Your task to perform on an android device: change keyboard looks Image 0: 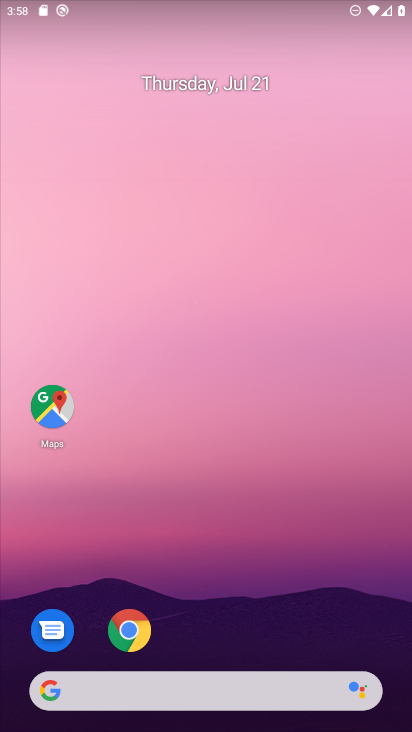
Step 0: drag from (208, 660) to (173, 7)
Your task to perform on an android device: change keyboard looks Image 1: 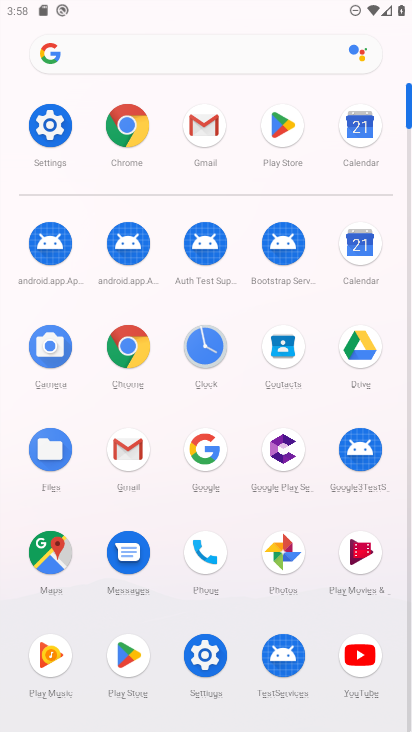
Step 1: click (51, 114)
Your task to perform on an android device: change keyboard looks Image 2: 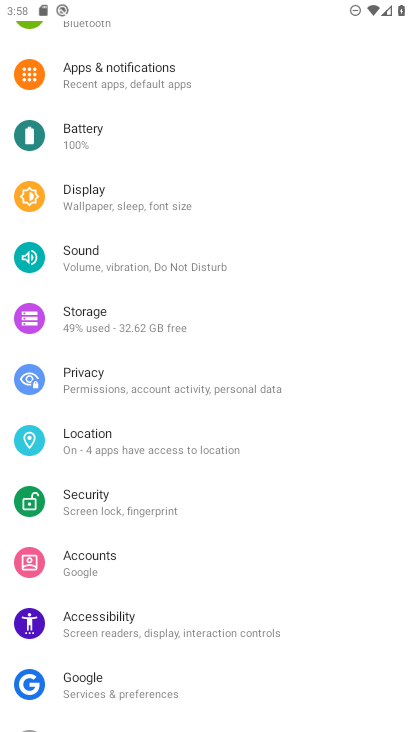
Step 2: drag from (142, 629) to (148, 92)
Your task to perform on an android device: change keyboard looks Image 3: 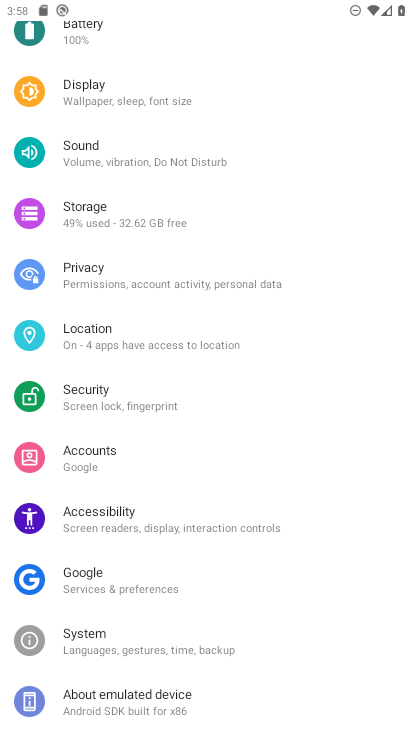
Step 3: click (118, 637)
Your task to perform on an android device: change keyboard looks Image 4: 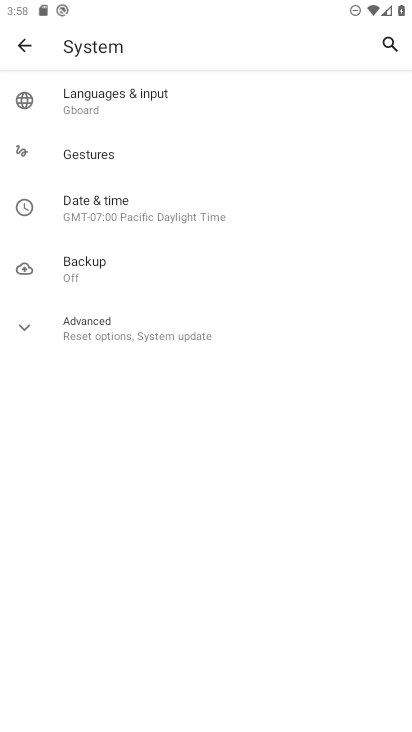
Step 4: click (118, 110)
Your task to perform on an android device: change keyboard looks Image 5: 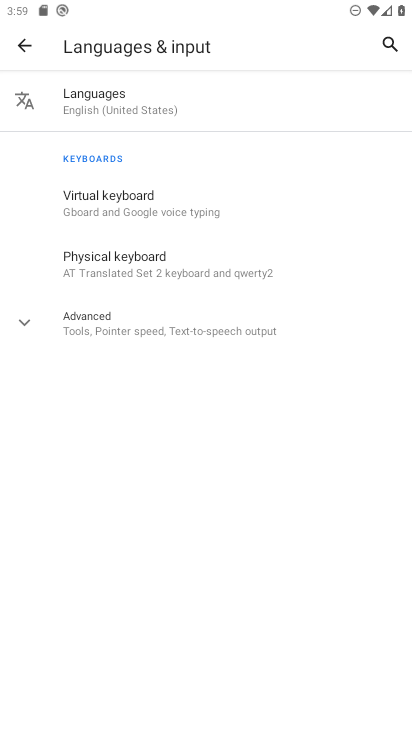
Step 5: click (96, 205)
Your task to perform on an android device: change keyboard looks Image 6: 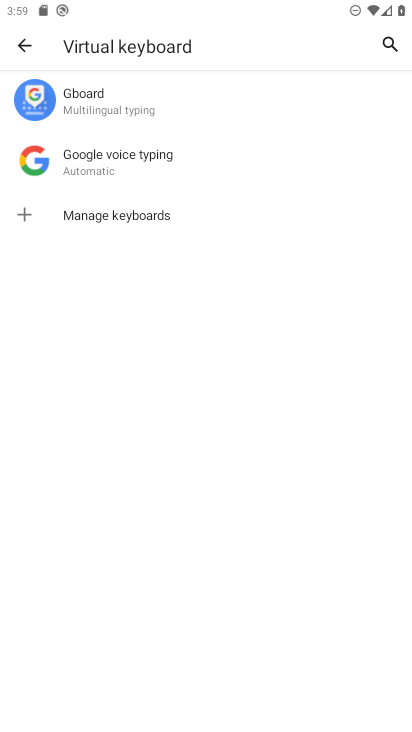
Step 6: click (85, 91)
Your task to perform on an android device: change keyboard looks Image 7: 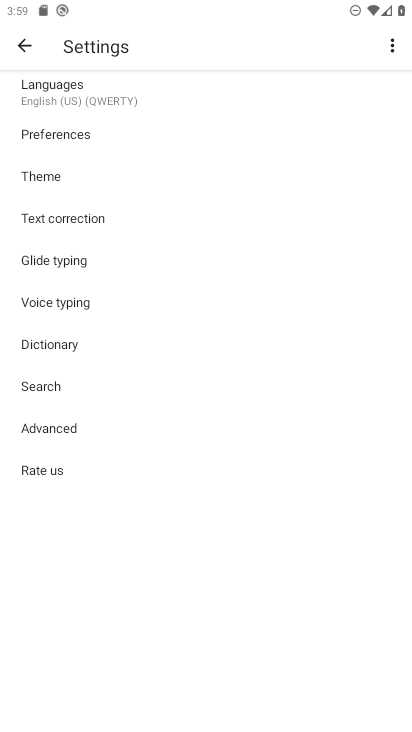
Step 7: click (2, 184)
Your task to perform on an android device: change keyboard looks Image 8: 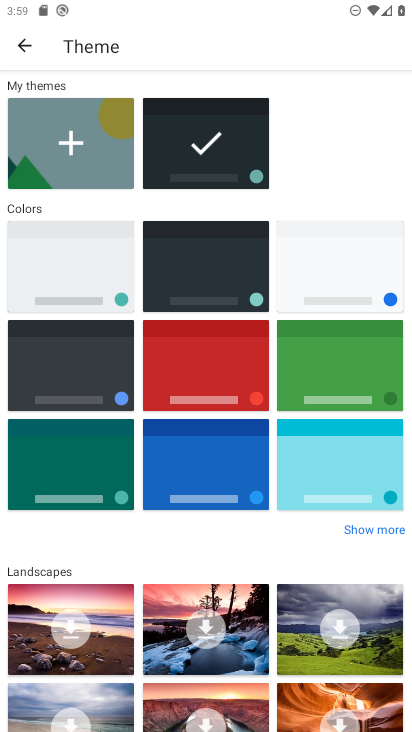
Step 8: click (171, 291)
Your task to perform on an android device: change keyboard looks Image 9: 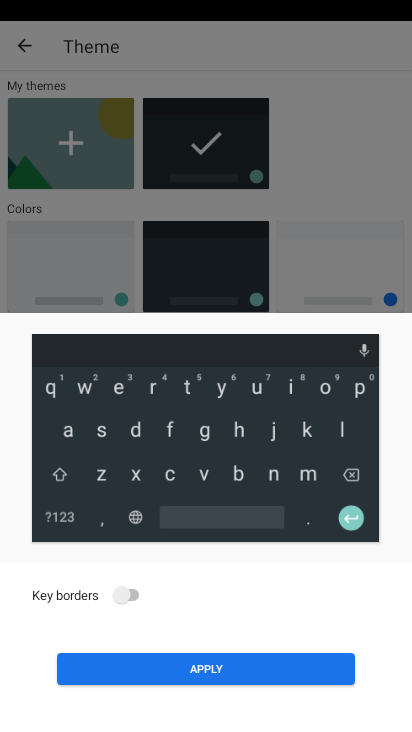
Step 9: click (273, 682)
Your task to perform on an android device: change keyboard looks Image 10: 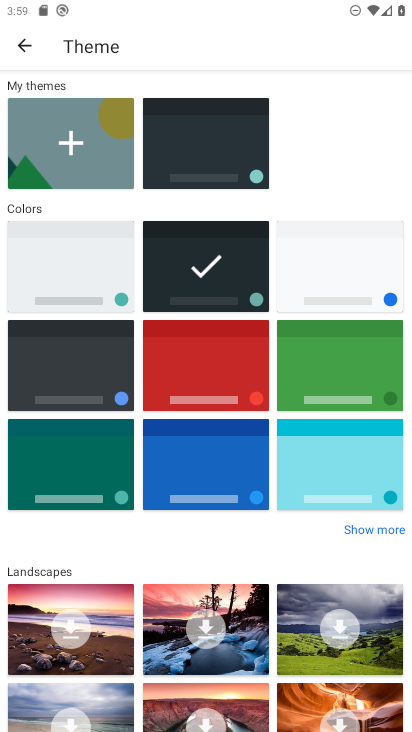
Step 10: task complete